Your task to perform on an android device: Check the news Image 0: 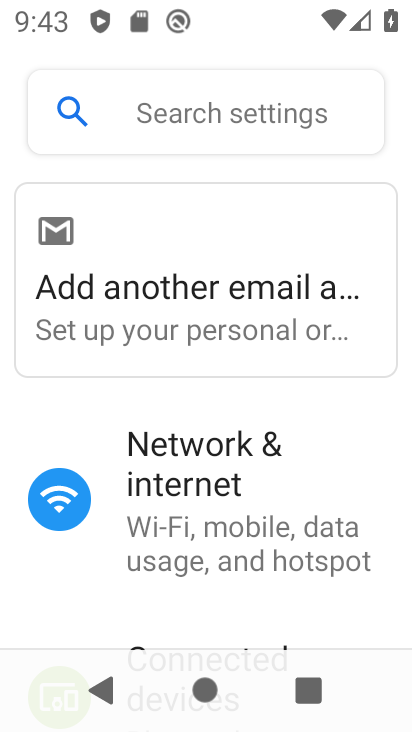
Step 0: press home button
Your task to perform on an android device: Check the news Image 1: 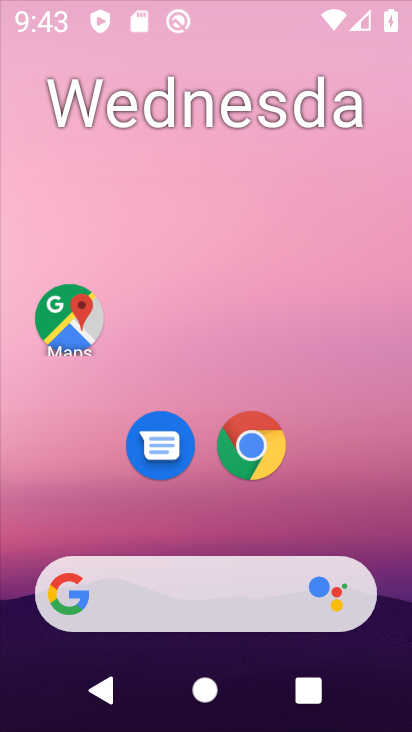
Step 1: drag from (216, 723) to (215, 227)
Your task to perform on an android device: Check the news Image 2: 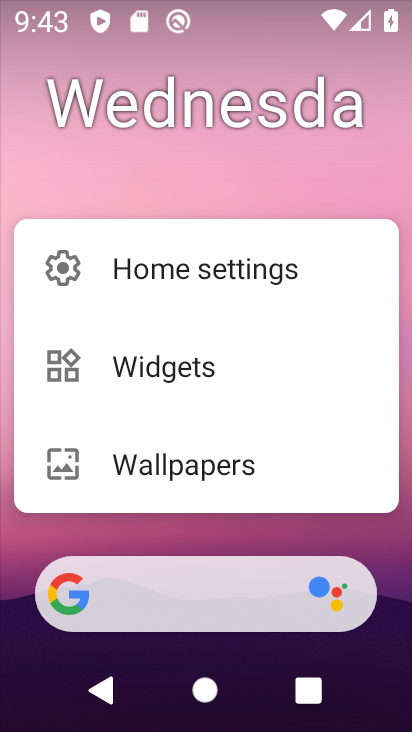
Step 2: click (225, 150)
Your task to perform on an android device: Check the news Image 3: 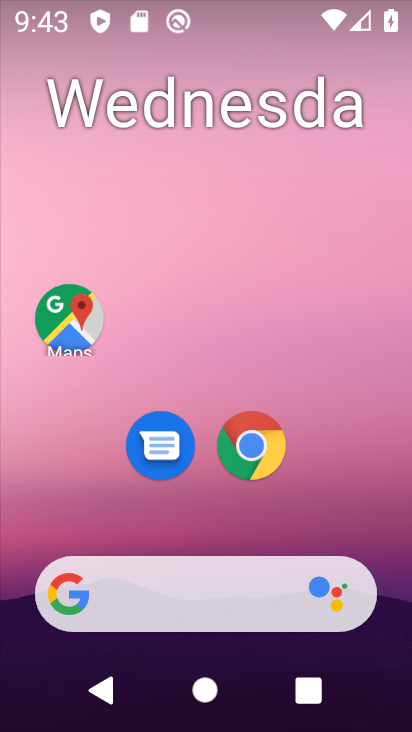
Step 3: task complete